Your task to perform on an android device: change timer sound Image 0: 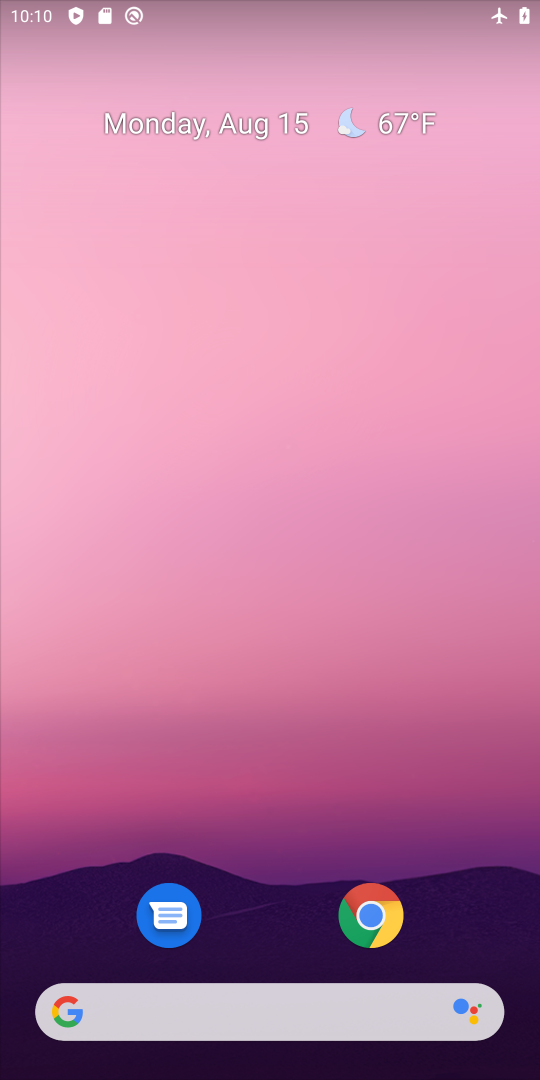
Step 0: drag from (482, 883) to (464, 15)
Your task to perform on an android device: change timer sound Image 1: 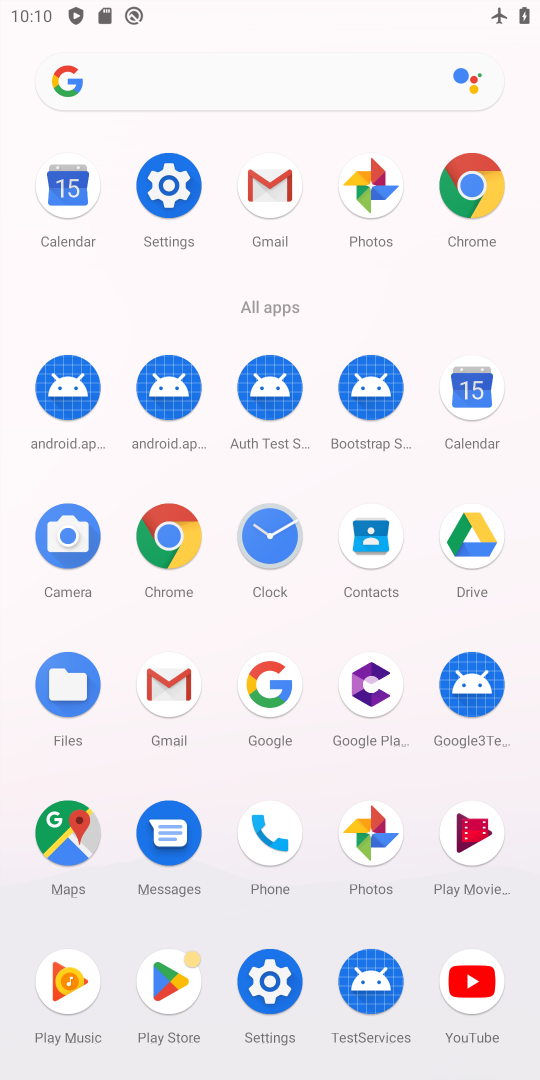
Step 1: click (281, 989)
Your task to perform on an android device: change timer sound Image 2: 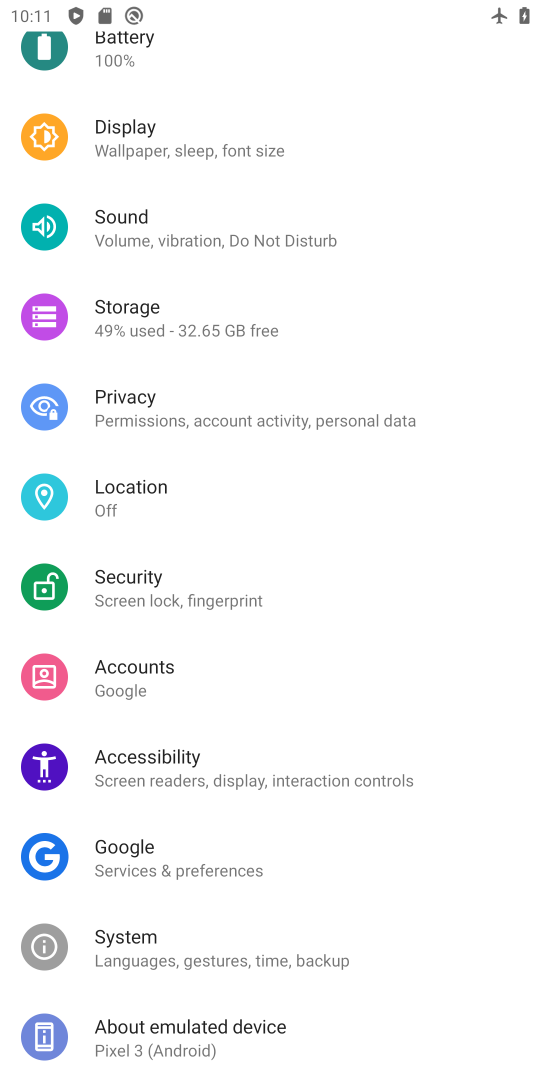
Step 2: click (252, 243)
Your task to perform on an android device: change timer sound Image 3: 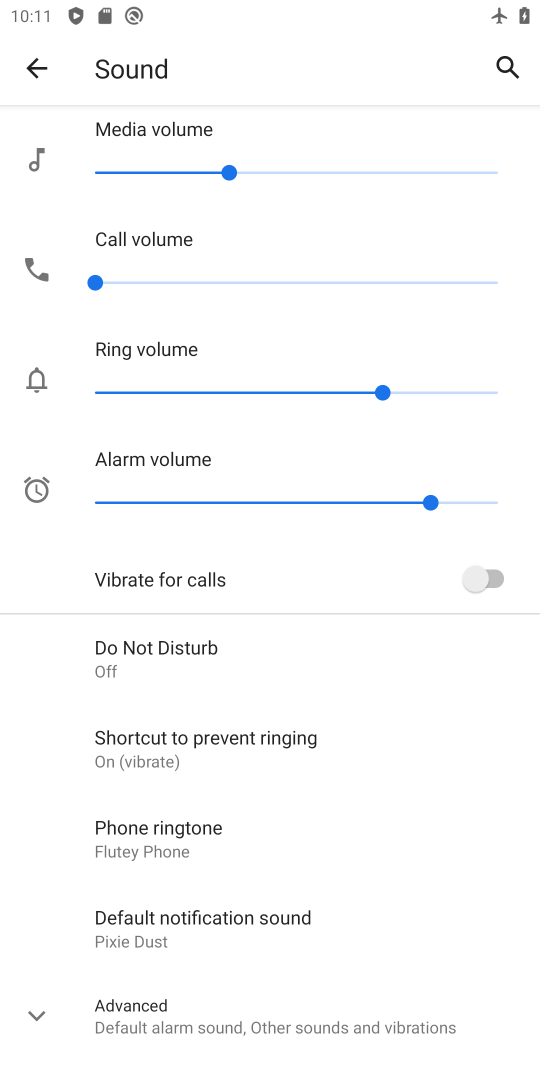
Step 3: press home button
Your task to perform on an android device: change timer sound Image 4: 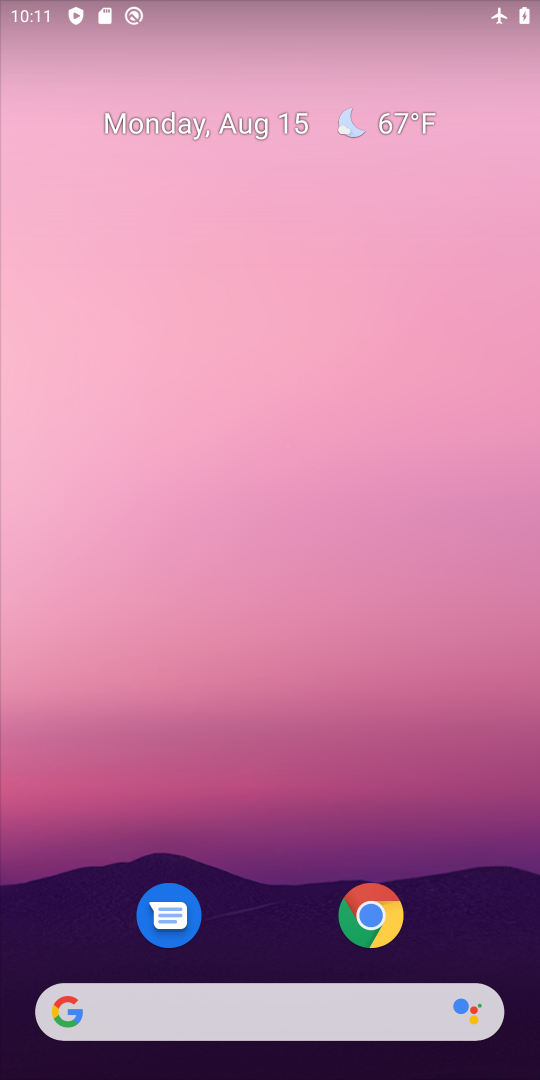
Step 4: drag from (455, 809) to (383, 238)
Your task to perform on an android device: change timer sound Image 5: 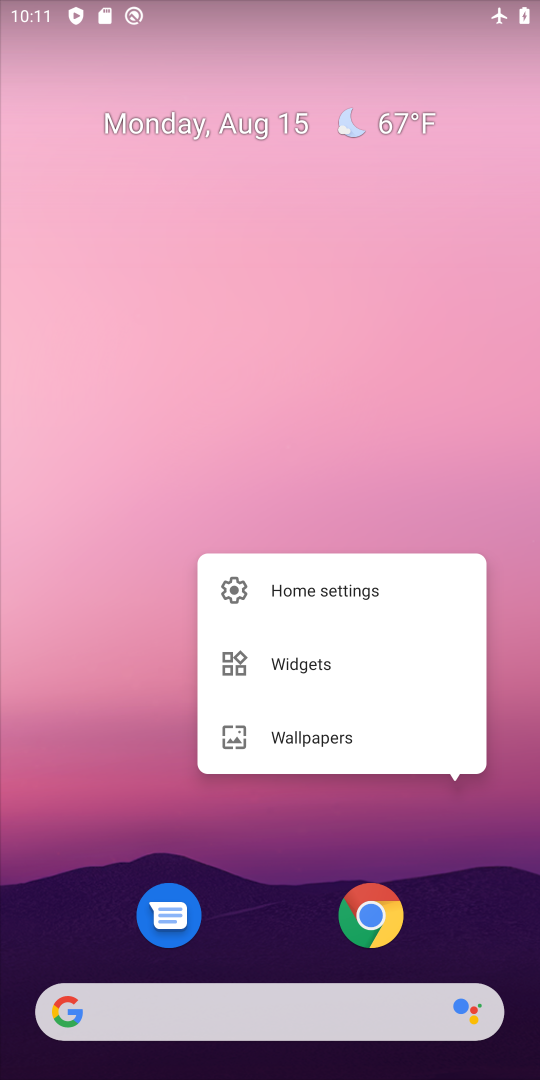
Step 5: click (519, 659)
Your task to perform on an android device: change timer sound Image 6: 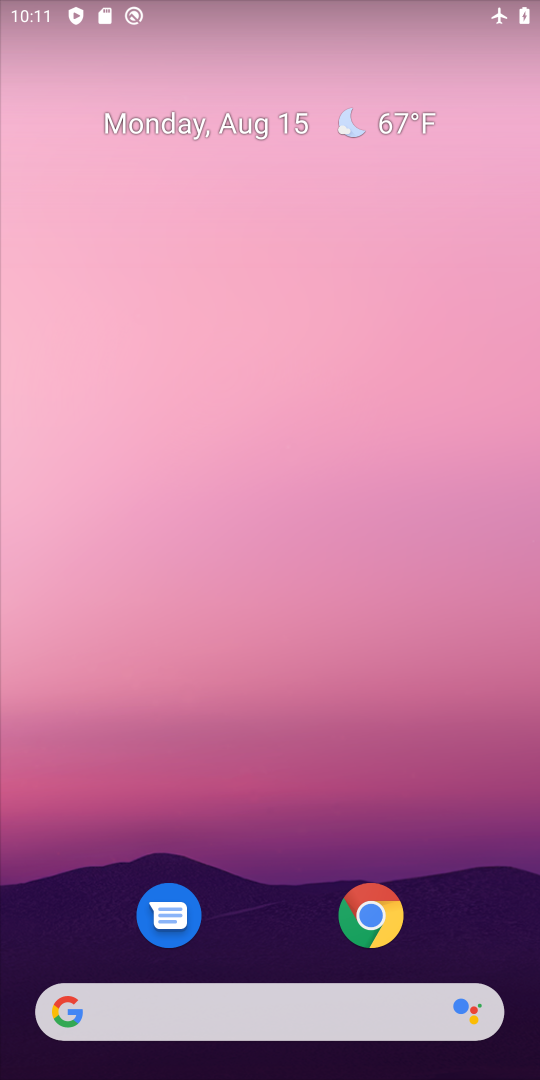
Step 6: drag from (462, 890) to (419, 38)
Your task to perform on an android device: change timer sound Image 7: 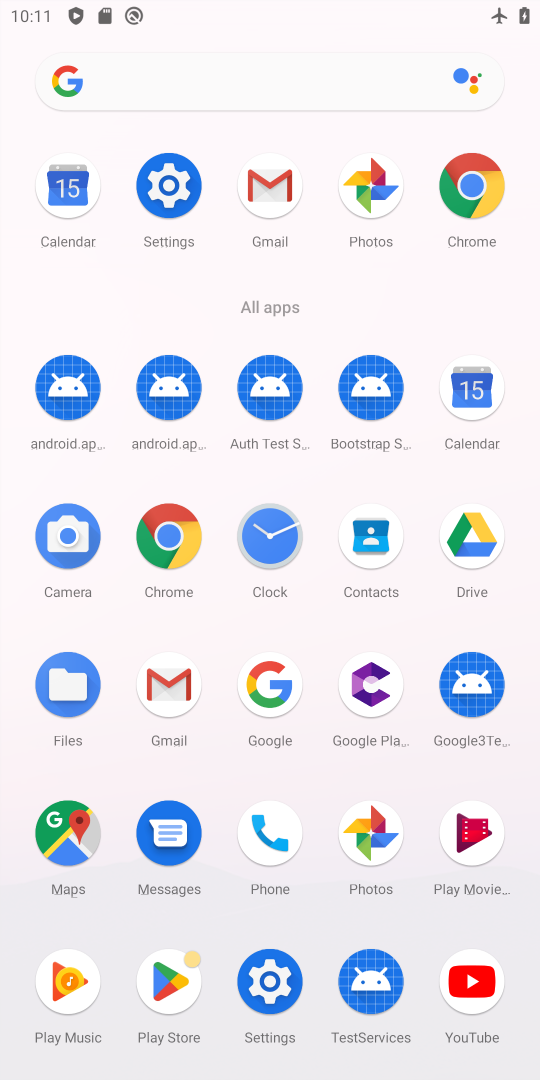
Step 7: click (273, 553)
Your task to perform on an android device: change timer sound Image 8: 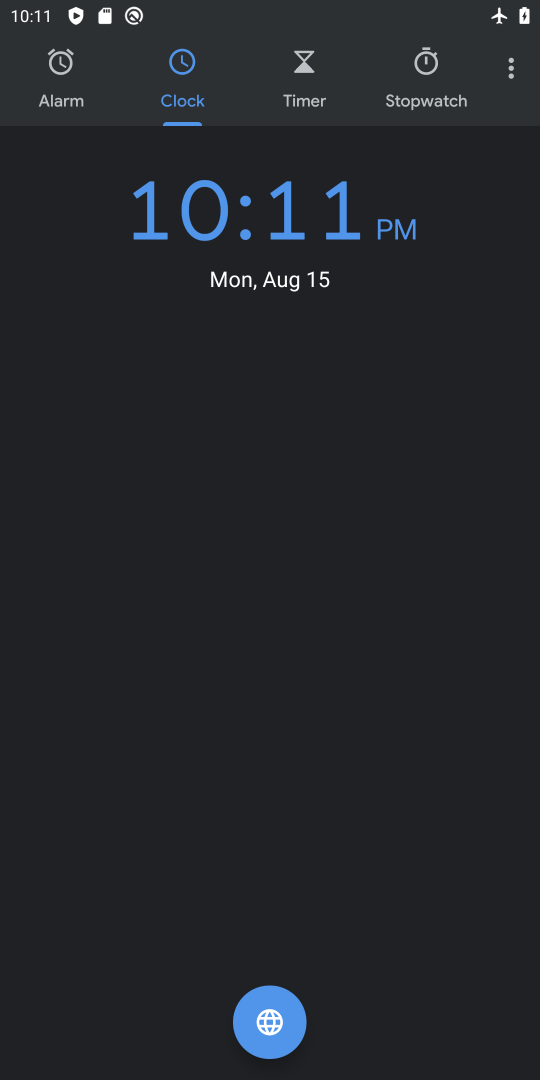
Step 8: click (523, 77)
Your task to perform on an android device: change timer sound Image 9: 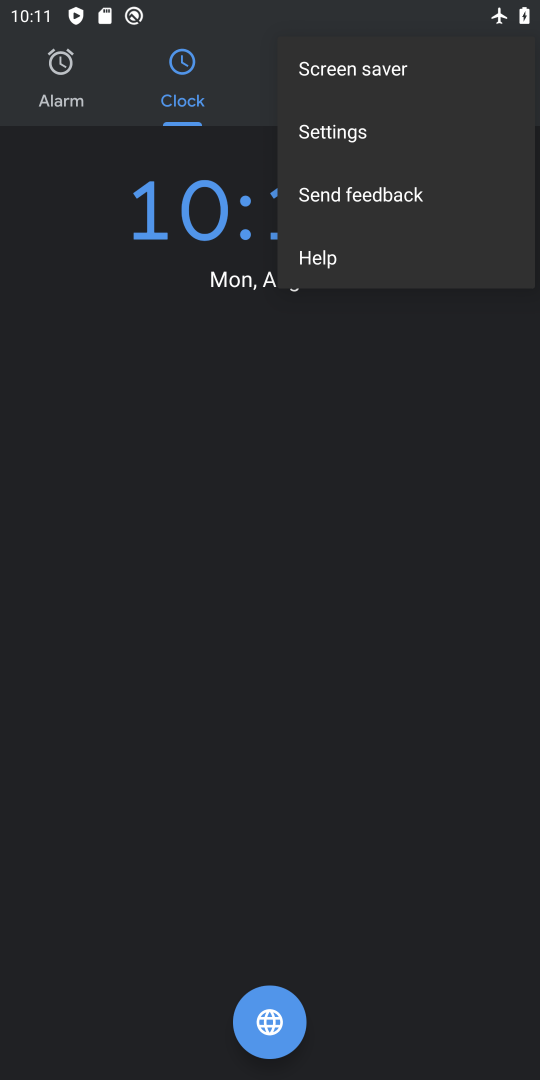
Step 9: click (403, 143)
Your task to perform on an android device: change timer sound Image 10: 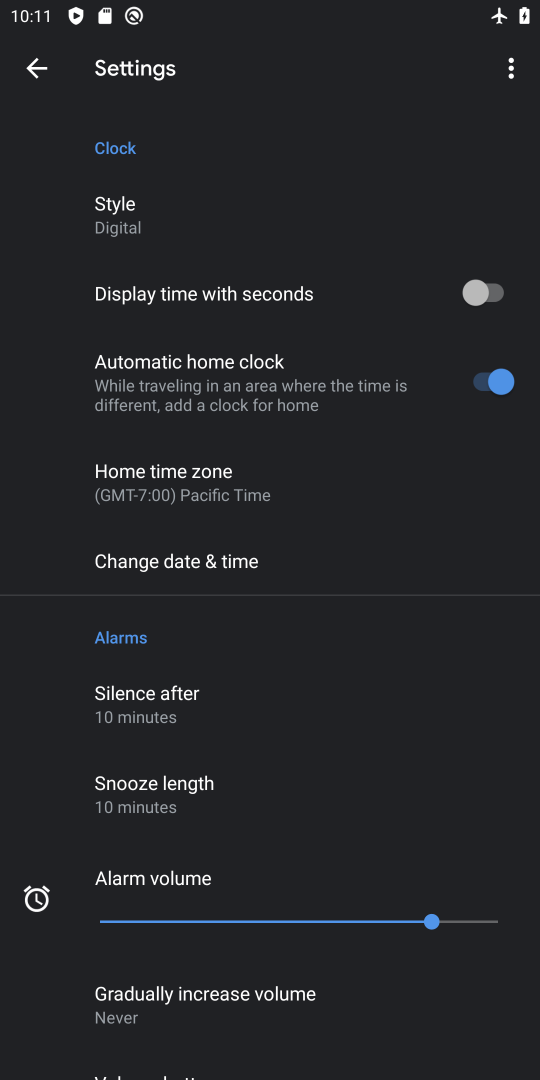
Step 10: drag from (355, 794) to (407, 139)
Your task to perform on an android device: change timer sound Image 11: 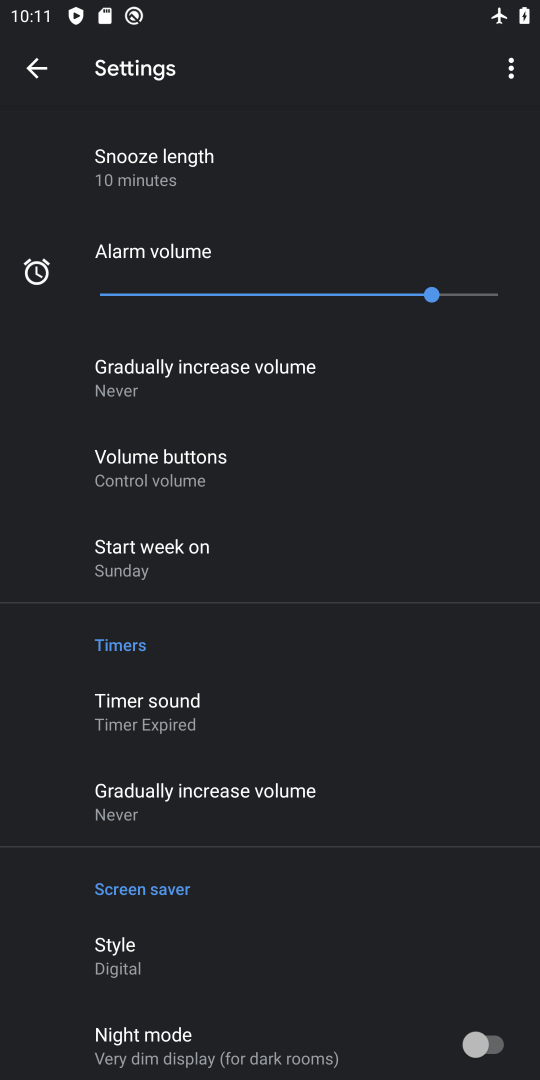
Step 11: click (234, 725)
Your task to perform on an android device: change timer sound Image 12: 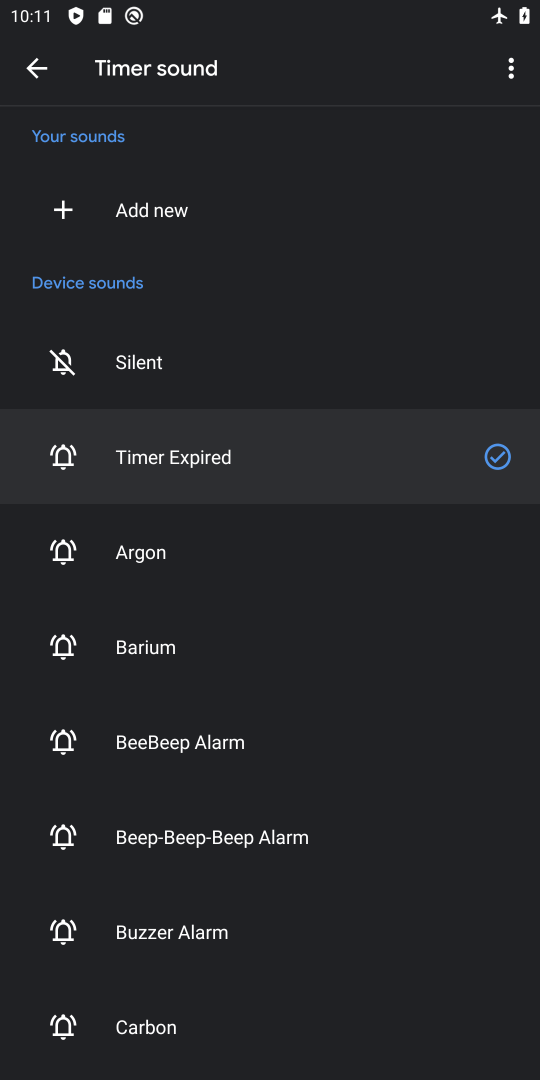
Step 12: click (249, 715)
Your task to perform on an android device: change timer sound Image 13: 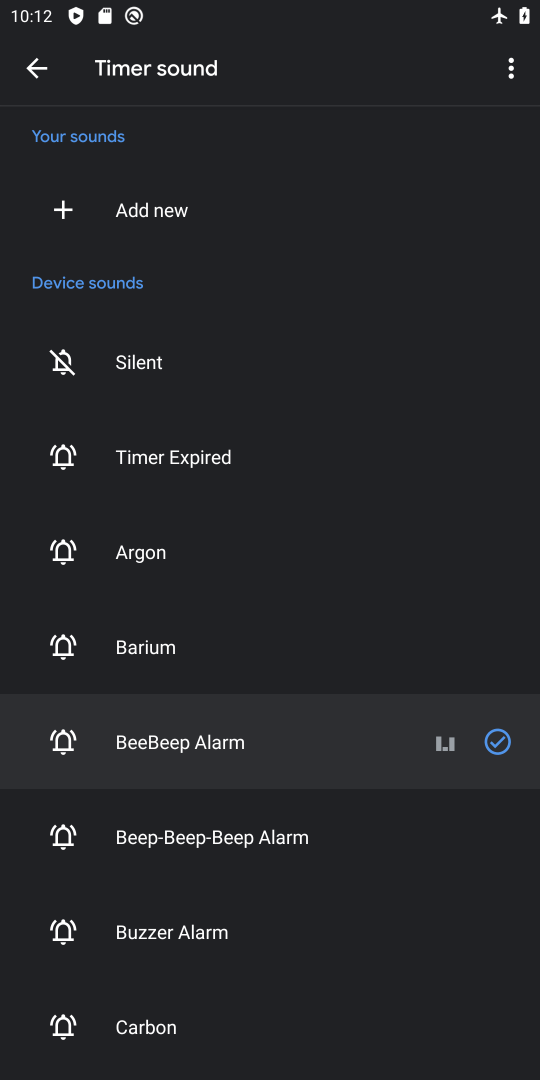
Step 13: task complete